Your task to perform on an android device: set the timer Image 0: 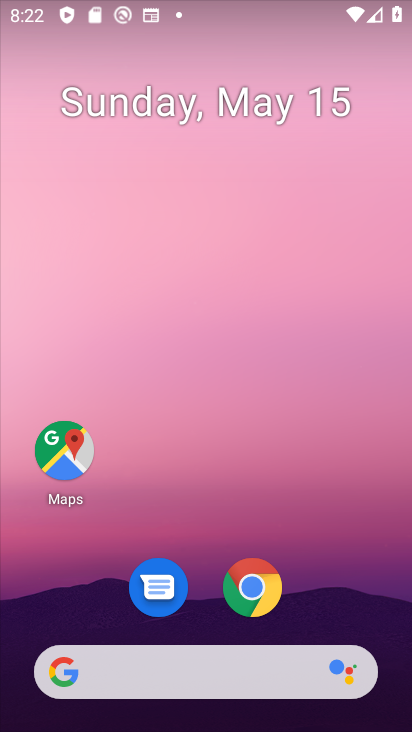
Step 0: drag from (387, 605) to (255, 40)
Your task to perform on an android device: set the timer Image 1: 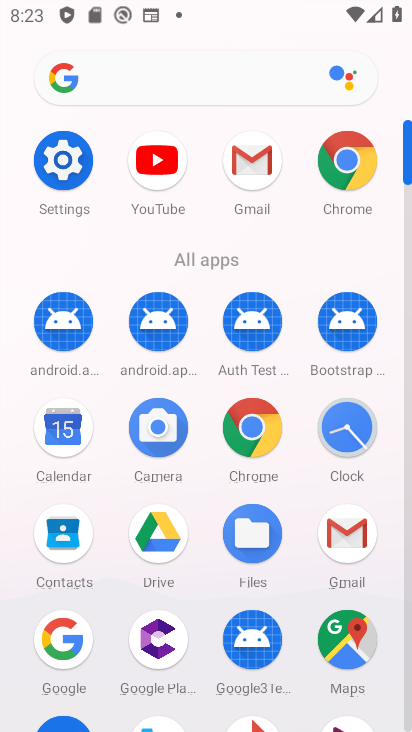
Step 1: click (346, 450)
Your task to perform on an android device: set the timer Image 2: 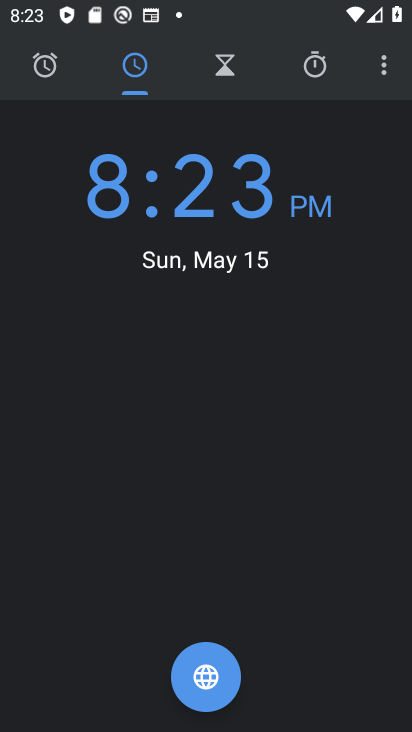
Step 2: click (384, 62)
Your task to perform on an android device: set the timer Image 3: 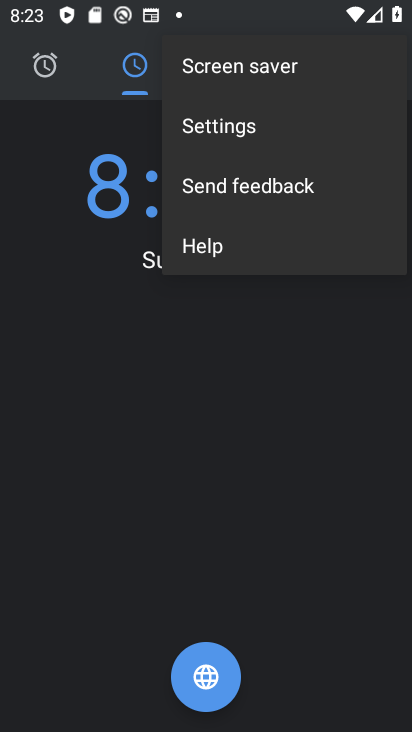
Step 3: click (273, 124)
Your task to perform on an android device: set the timer Image 4: 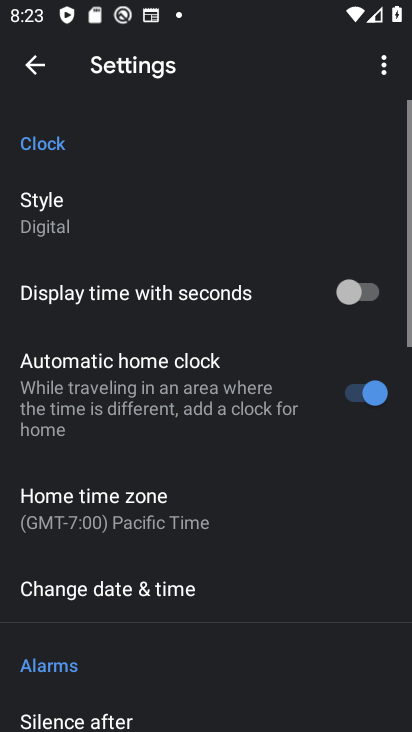
Step 4: click (143, 512)
Your task to perform on an android device: set the timer Image 5: 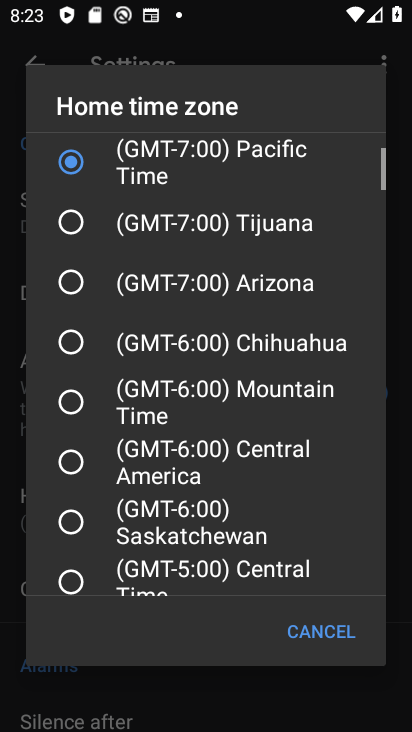
Step 5: click (148, 349)
Your task to perform on an android device: set the timer Image 6: 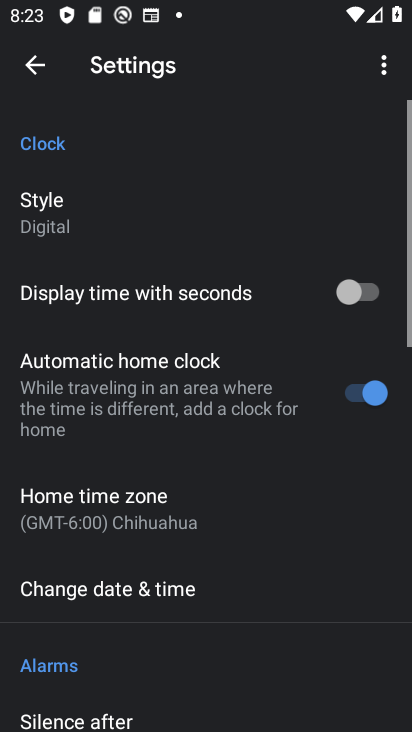
Step 6: task complete